Your task to perform on an android device: uninstall "AliExpress" Image 0: 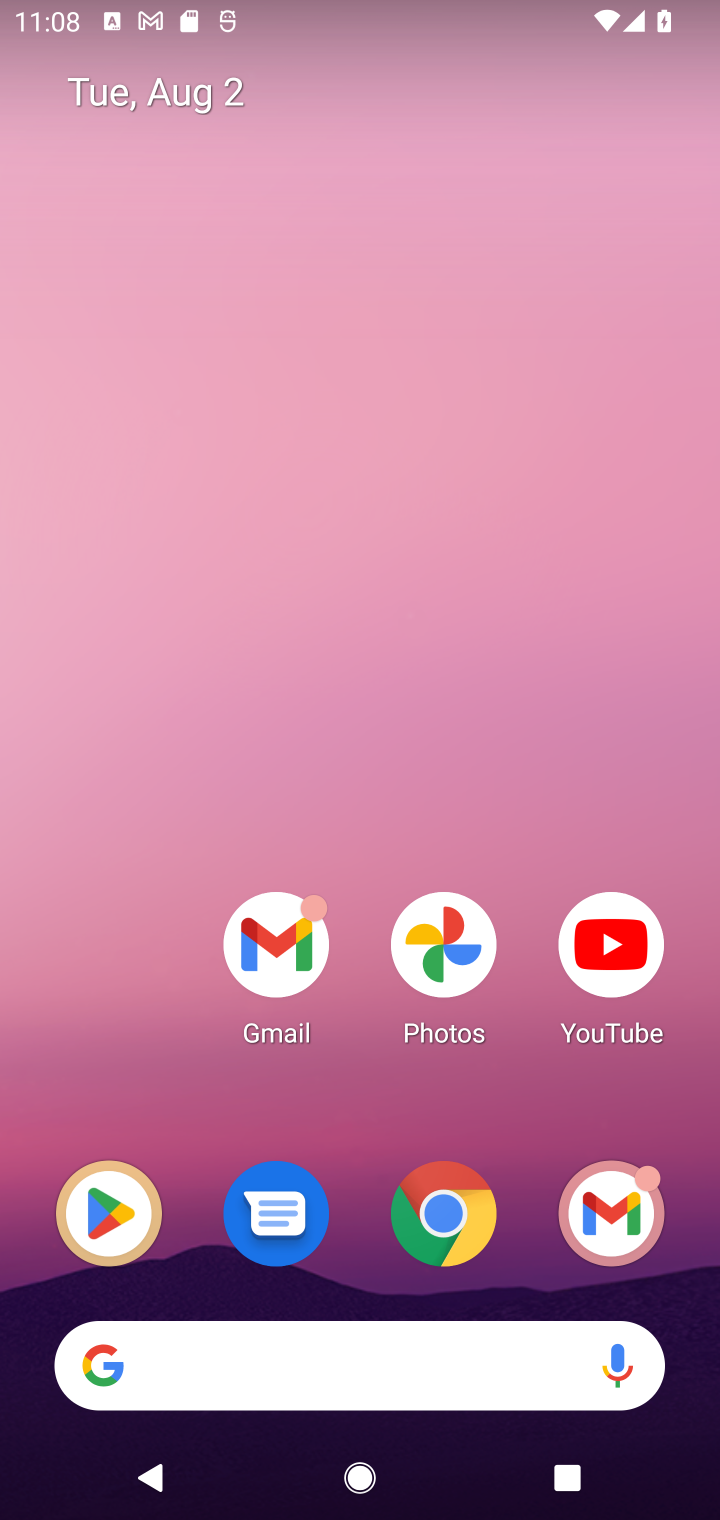
Step 0: click (111, 1213)
Your task to perform on an android device: uninstall "AliExpress" Image 1: 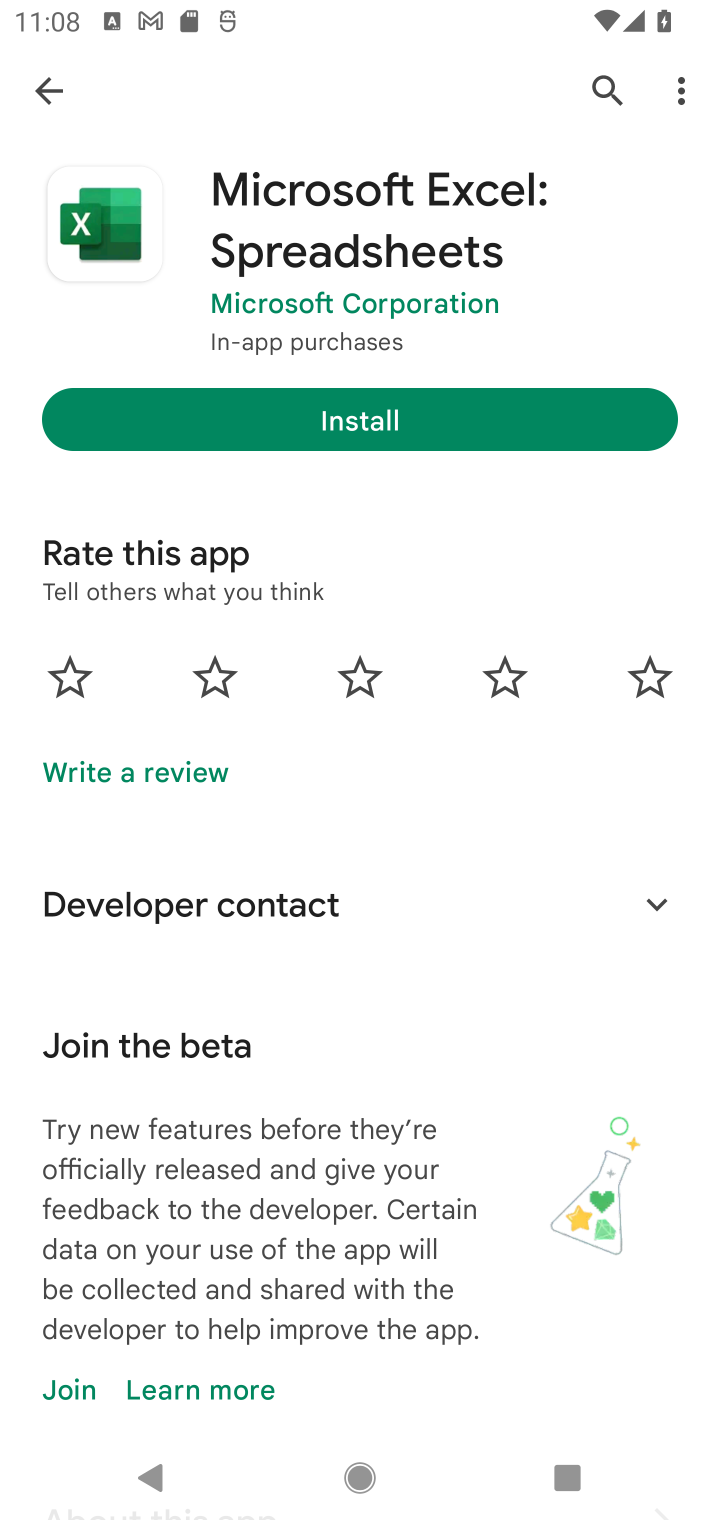
Step 1: click (48, 95)
Your task to perform on an android device: uninstall "AliExpress" Image 2: 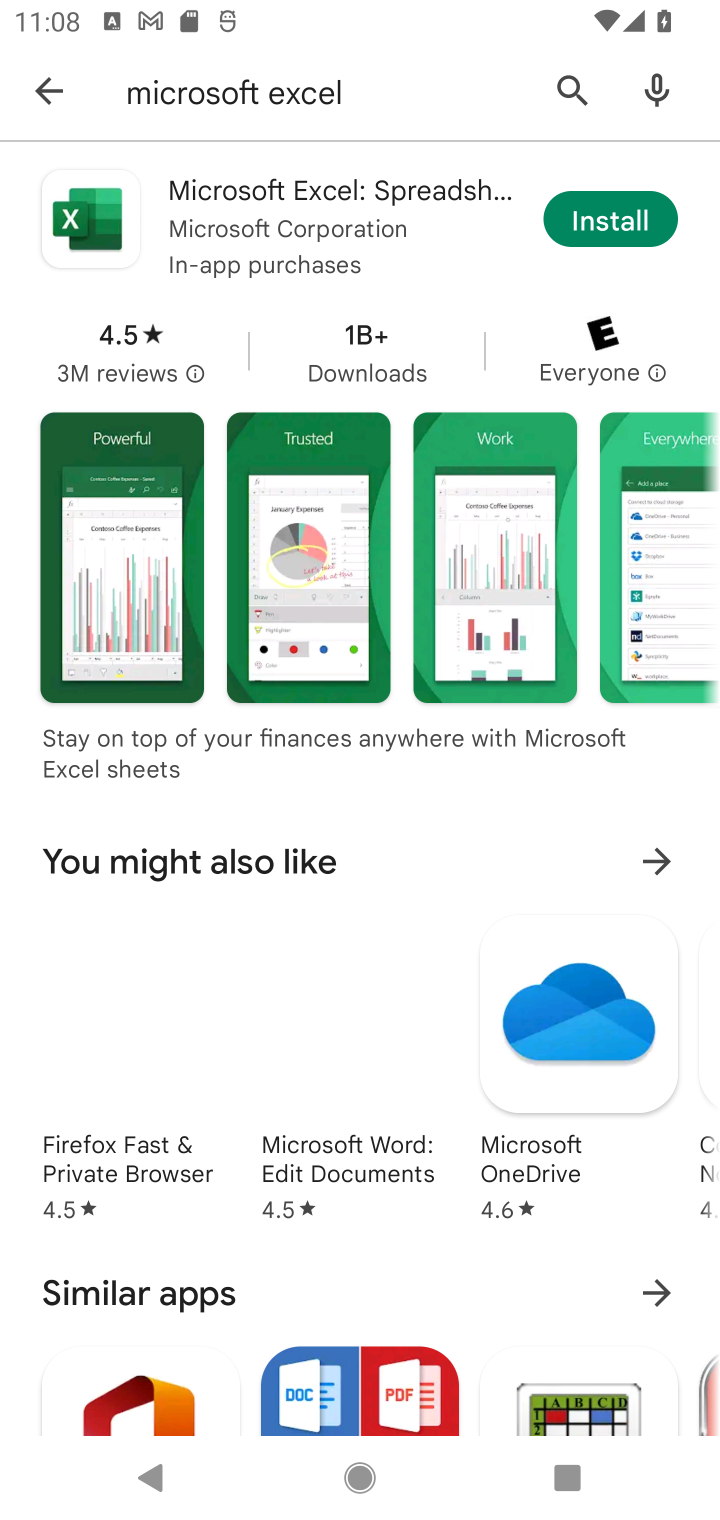
Step 2: click (31, 84)
Your task to perform on an android device: uninstall "AliExpress" Image 3: 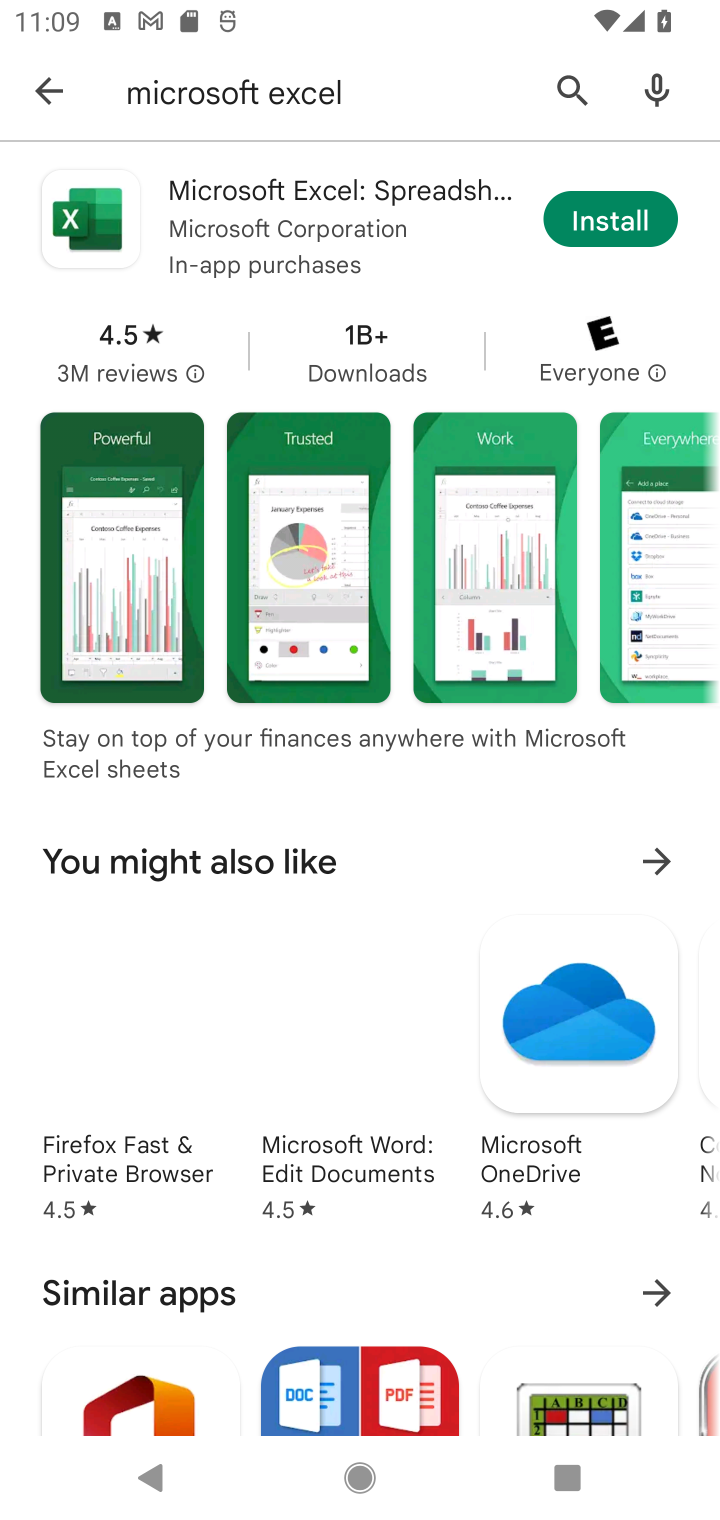
Step 3: click (41, 93)
Your task to perform on an android device: uninstall "AliExpress" Image 4: 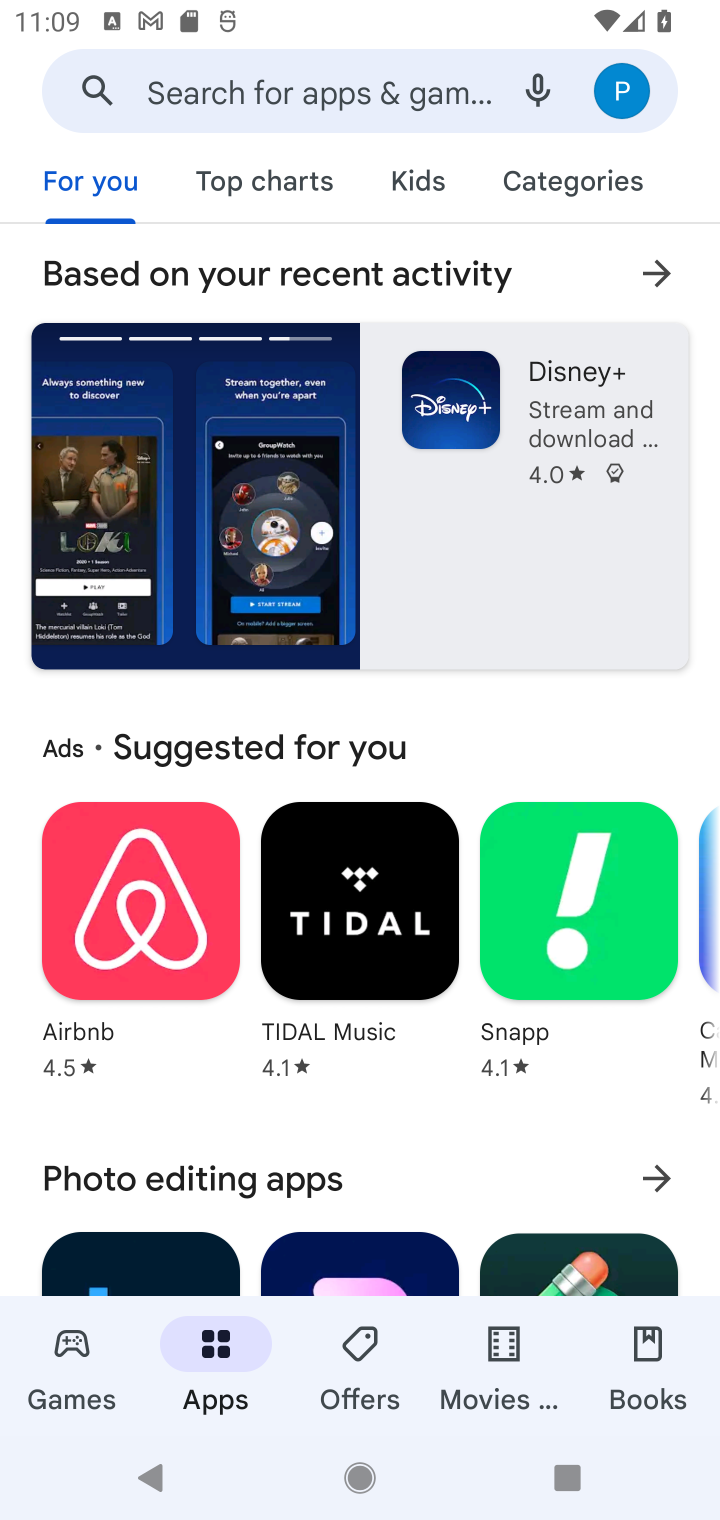
Step 4: click (233, 93)
Your task to perform on an android device: uninstall "AliExpress" Image 5: 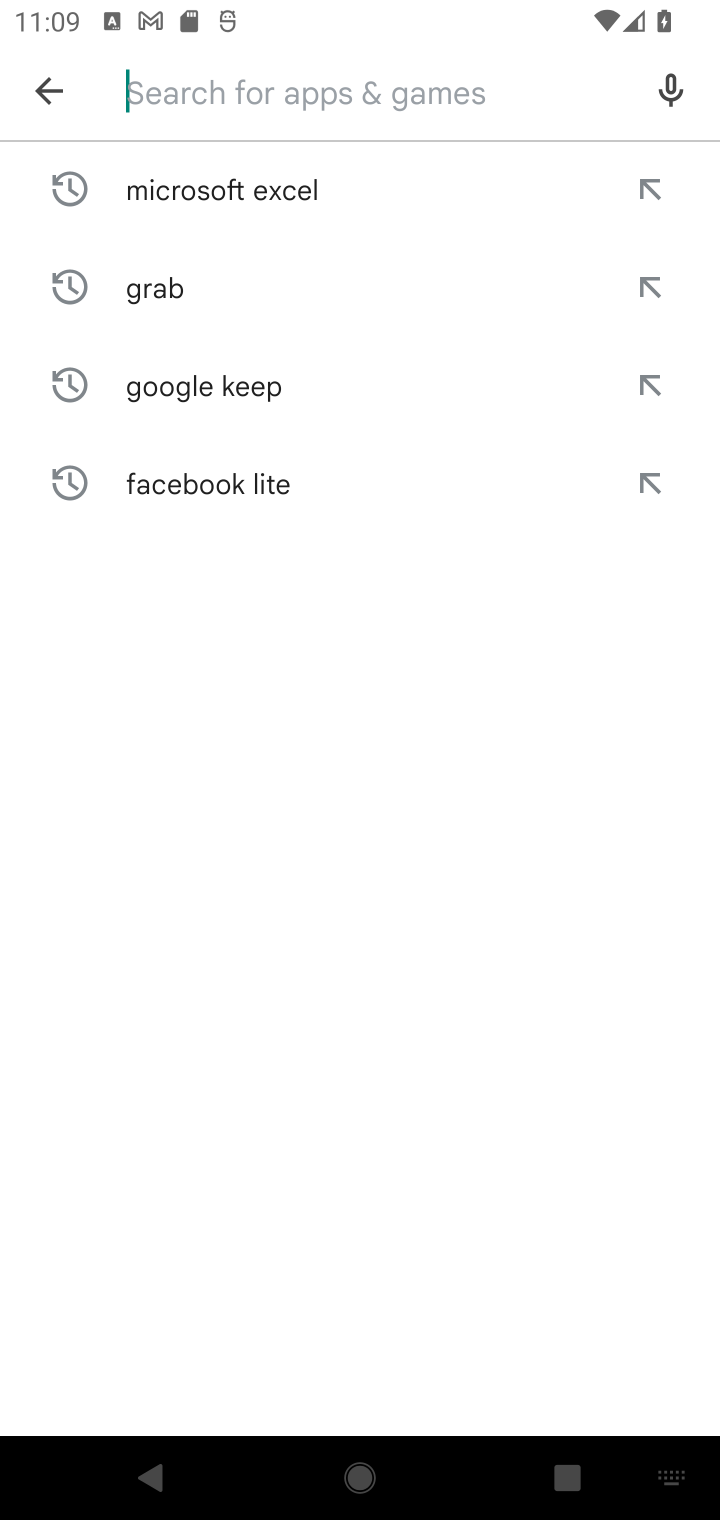
Step 5: type "AliExpress"
Your task to perform on an android device: uninstall "AliExpress" Image 6: 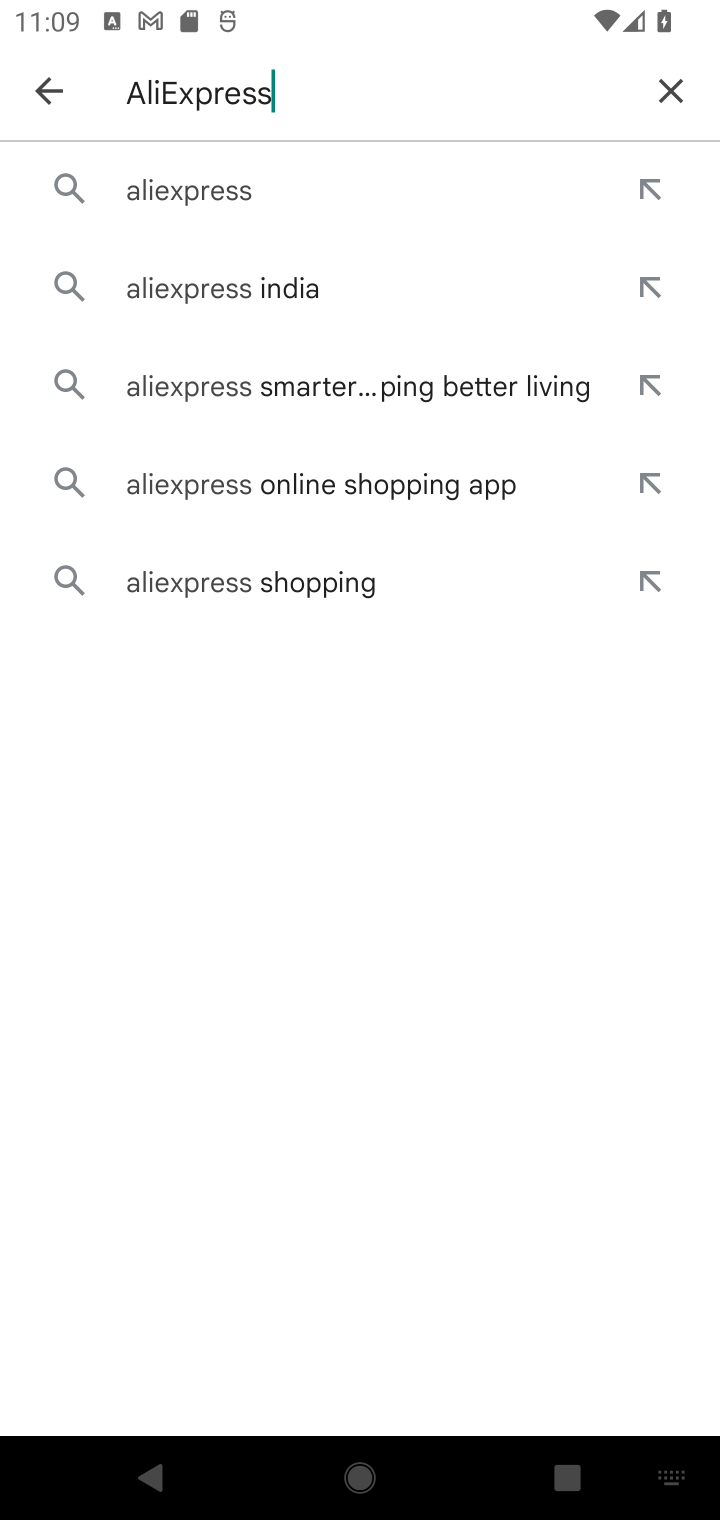
Step 6: click (175, 186)
Your task to perform on an android device: uninstall "AliExpress" Image 7: 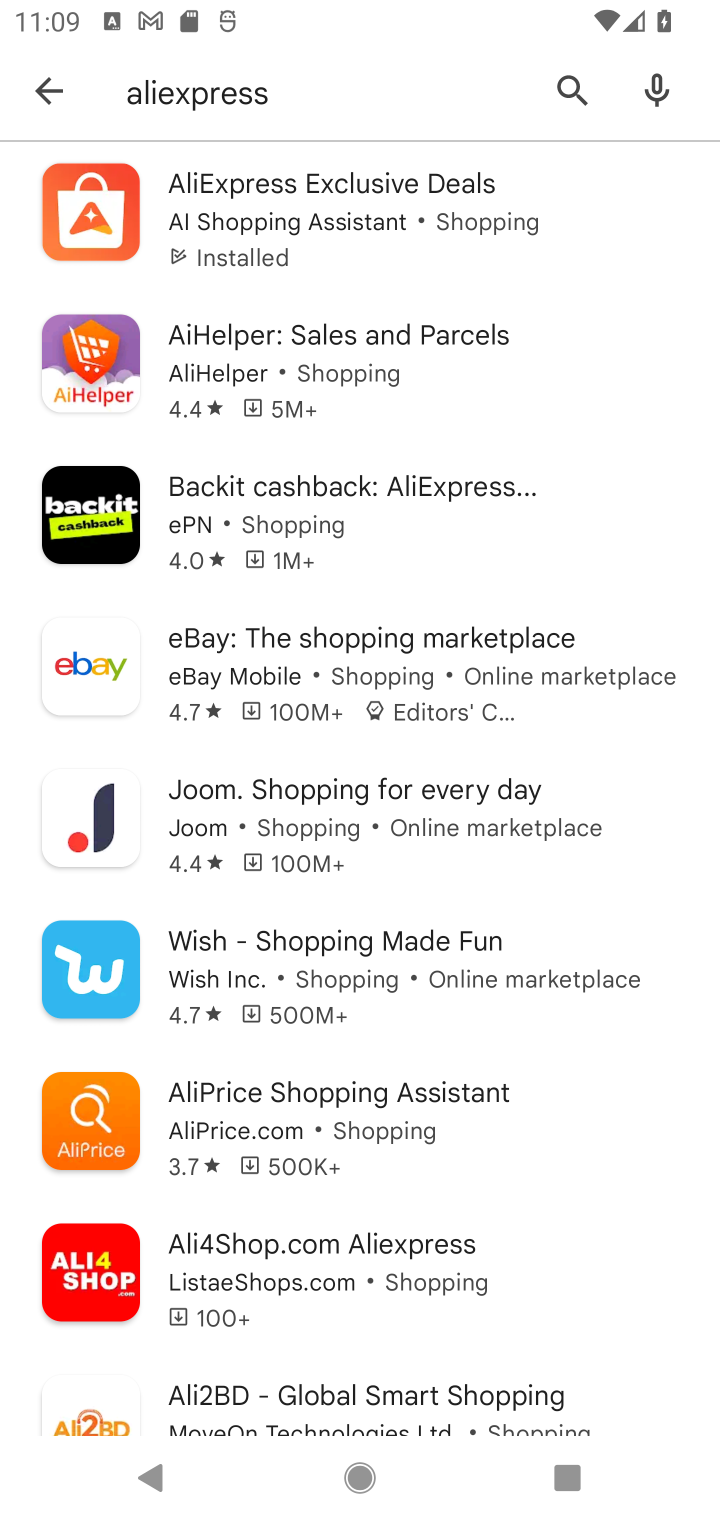
Step 7: click (232, 202)
Your task to perform on an android device: uninstall "AliExpress" Image 8: 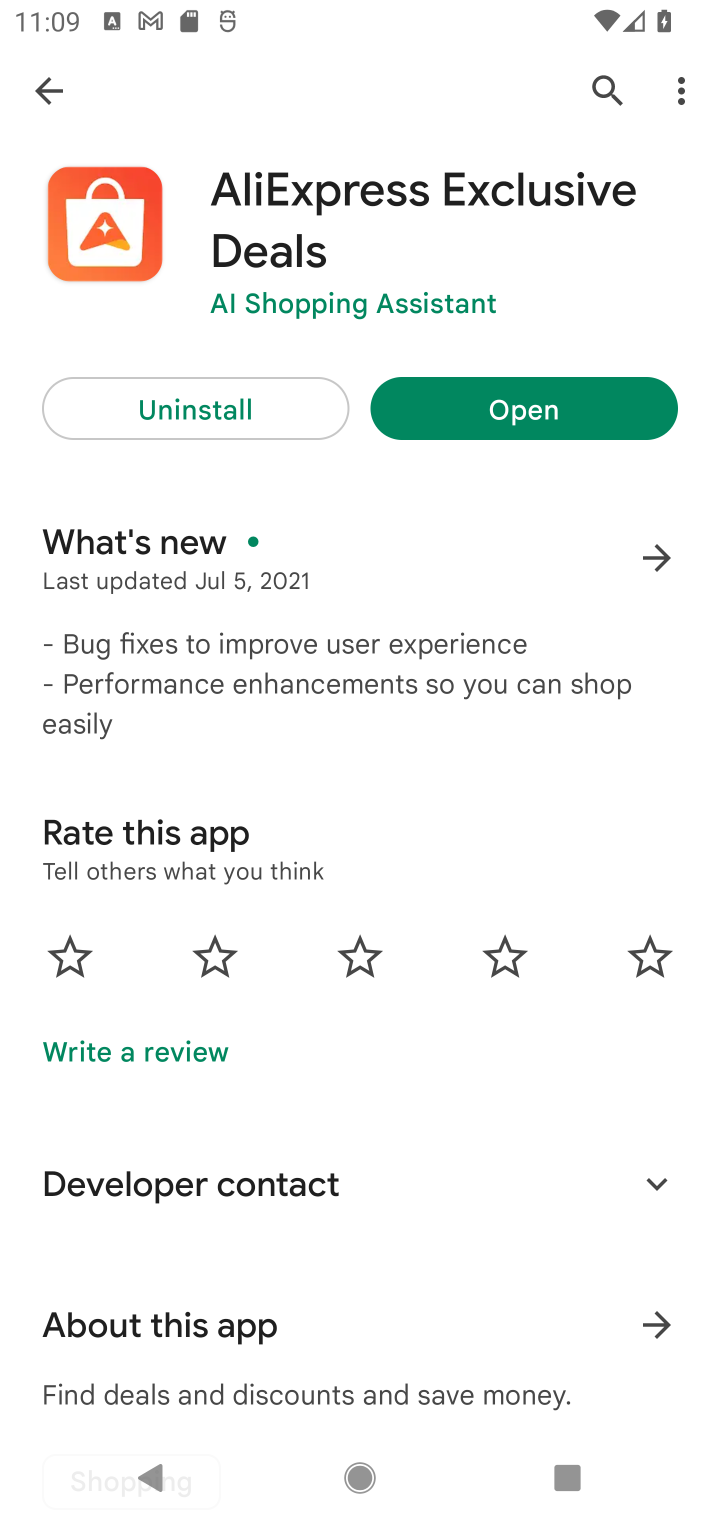
Step 8: click (165, 398)
Your task to perform on an android device: uninstall "AliExpress" Image 9: 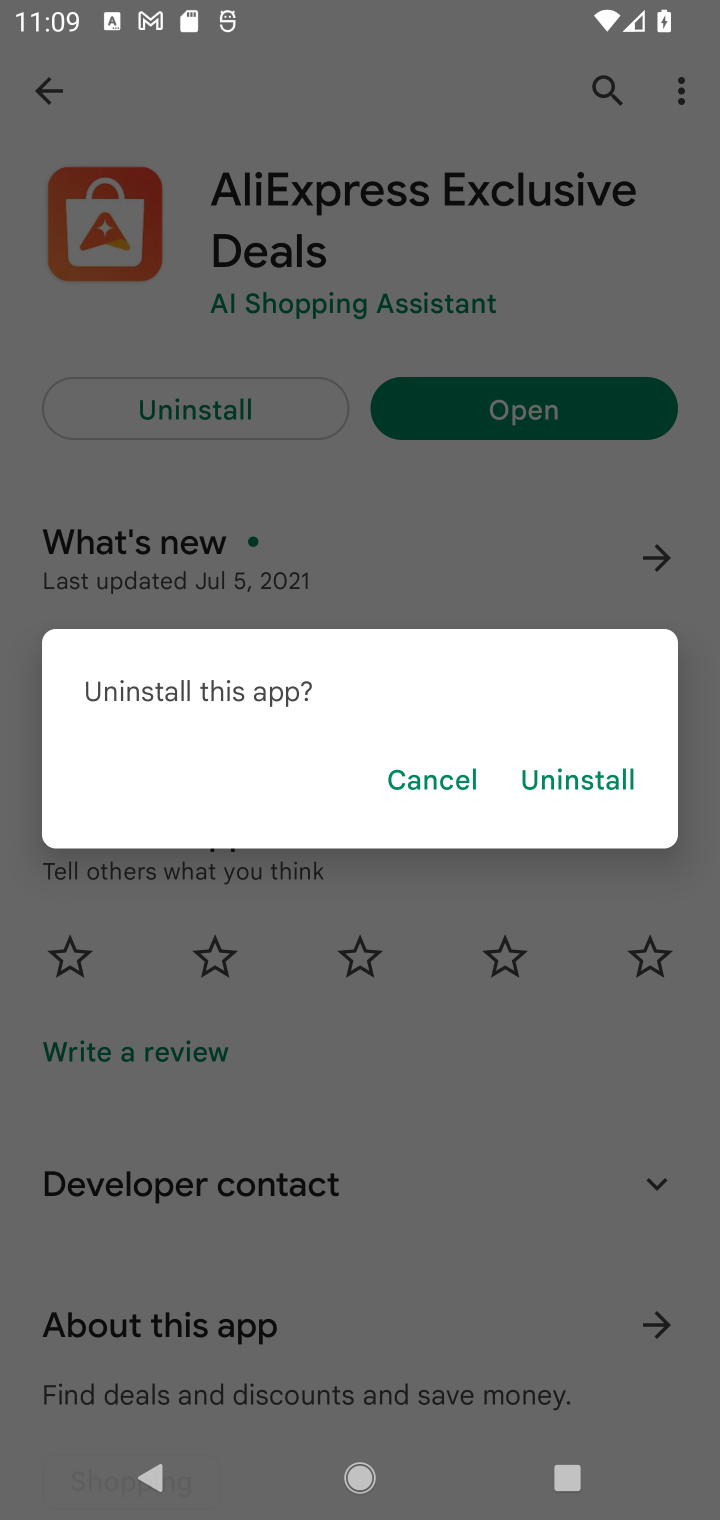
Step 9: click (575, 774)
Your task to perform on an android device: uninstall "AliExpress" Image 10: 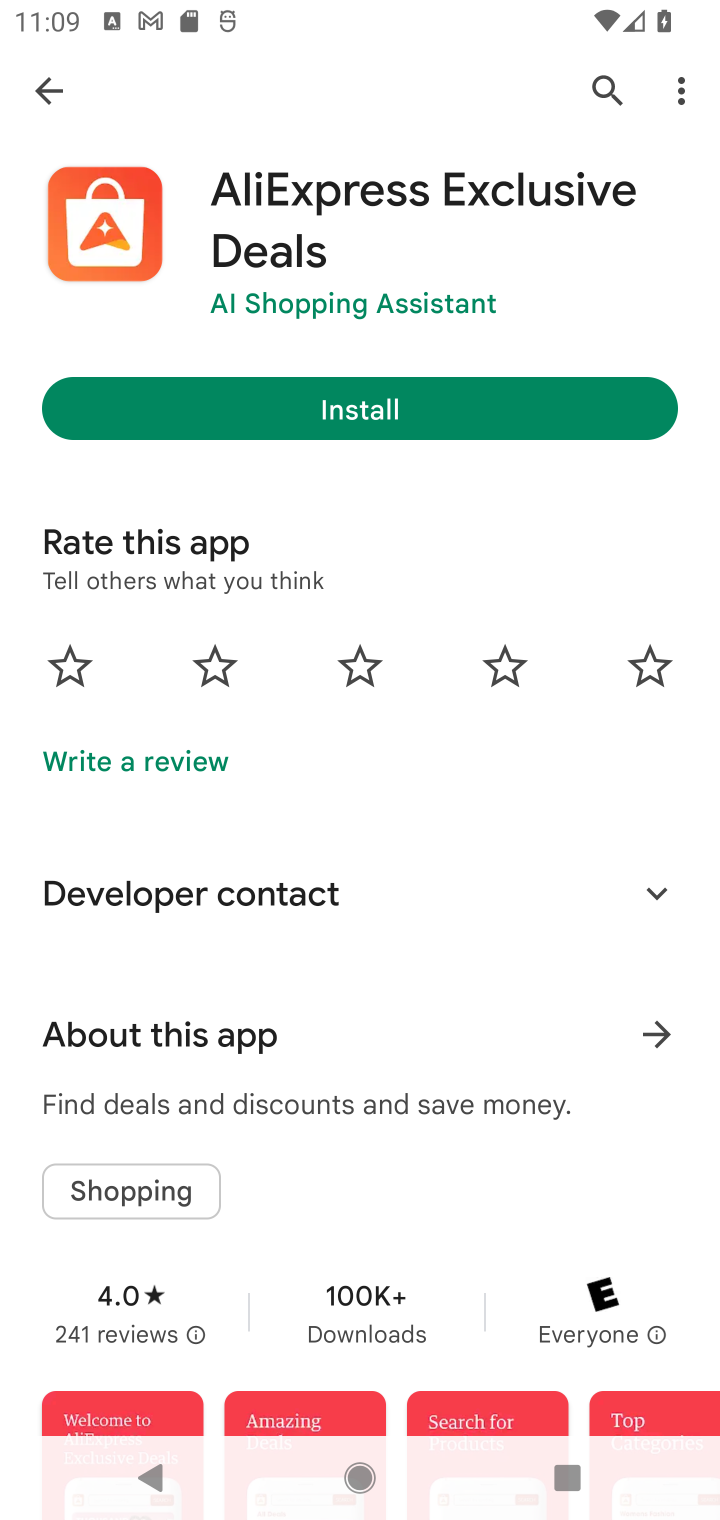
Step 10: task complete